Your task to perform on an android device: Open eBay Image 0: 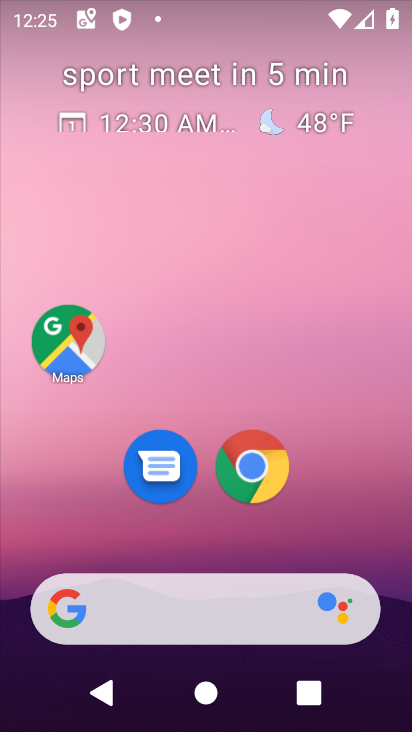
Step 0: click (258, 463)
Your task to perform on an android device: Open eBay Image 1: 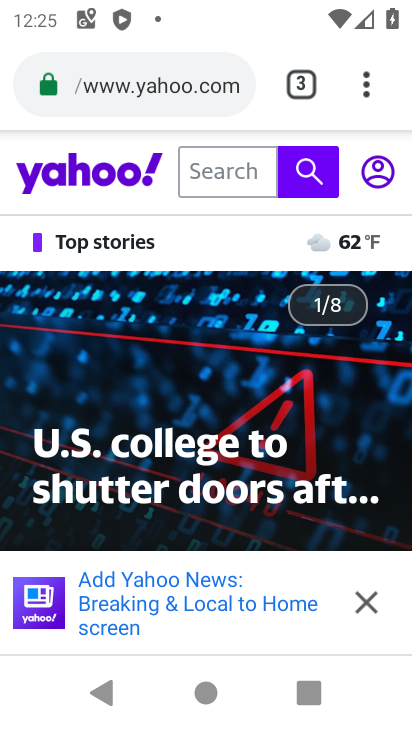
Step 1: click (140, 96)
Your task to perform on an android device: Open eBay Image 2: 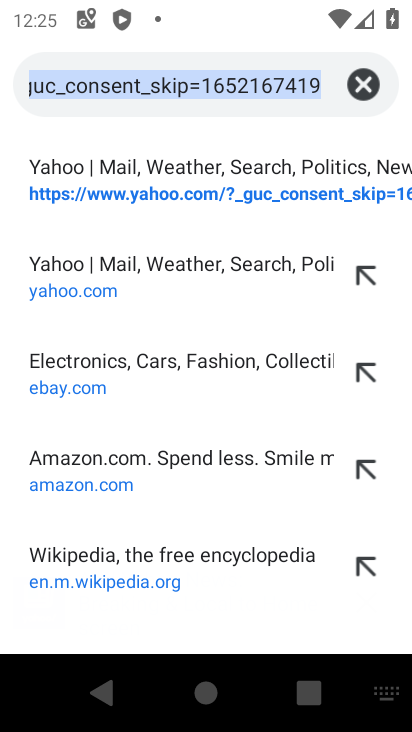
Step 2: click (374, 83)
Your task to perform on an android device: Open eBay Image 3: 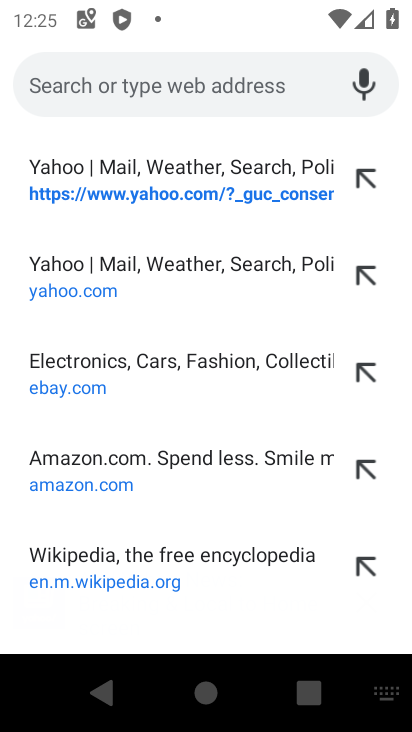
Step 3: type "ebay"
Your task to perform on an android device: Open eBay Image 4: 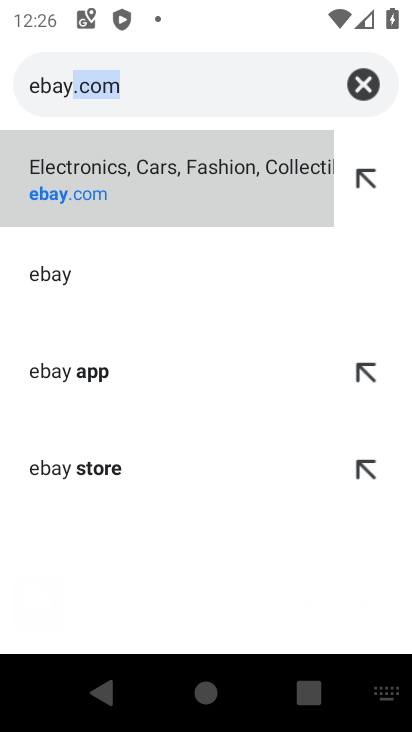
Step 4: click (129, 180)
Your task to perform on an android device: Open eBay Image 5: 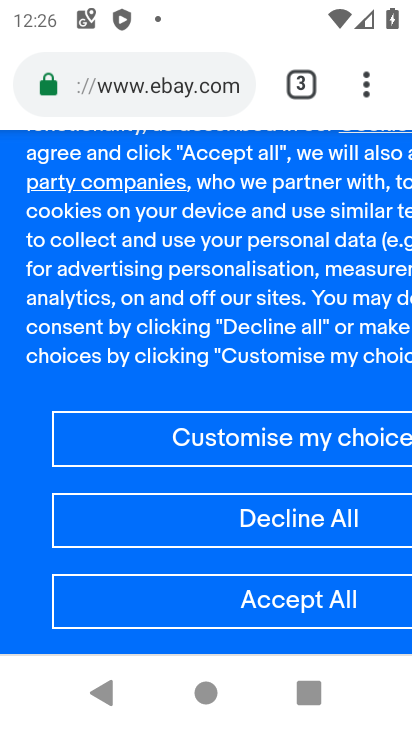
Step 5: task complete